Your task to perform on an android device: Go to calendar. Show me events next week Image 0: 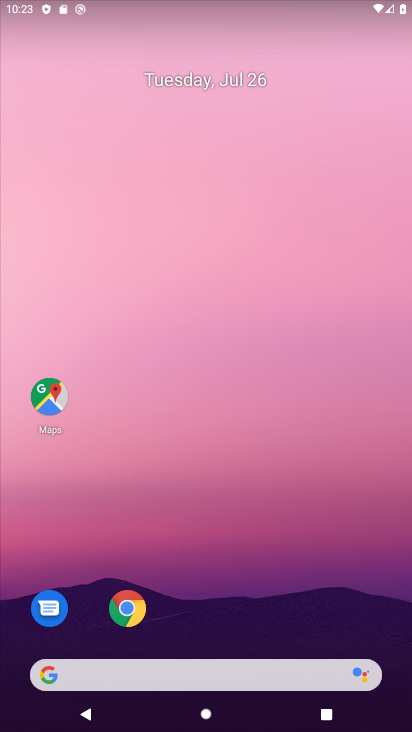
Step 0: drag from (345, 633) to (254, 0)
Your task to perform on an android device: Go to calendar. Show me events next week Image 1: 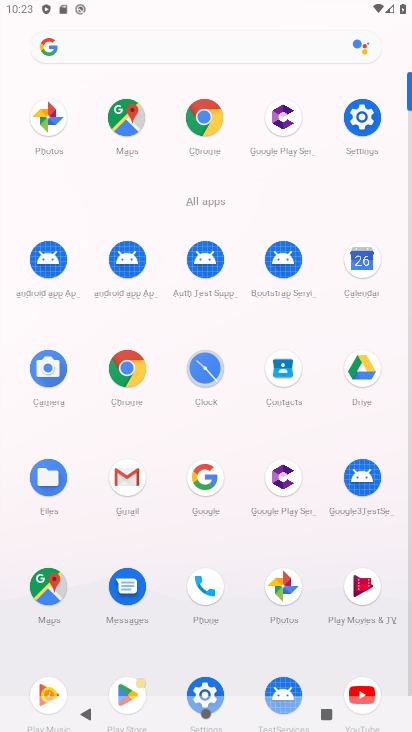
Step 1: click (366, 258)
Your task to perform on an android device: Go to calendar. Show me events next week Image 2: 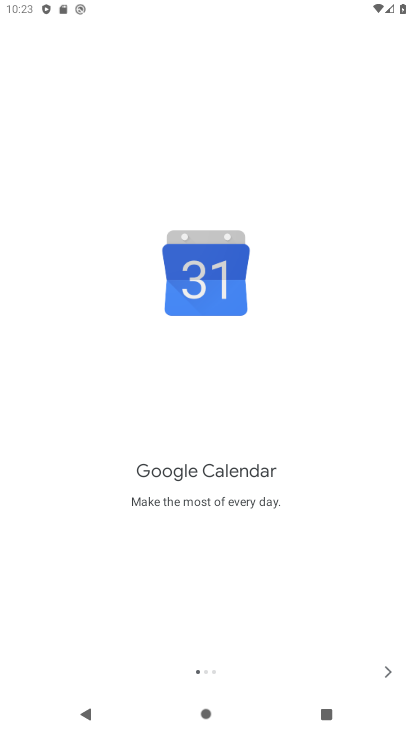
Step 2: click (388, 669)
Your task to perform on an android device: Go to calendar. Show me events next week Image 3: 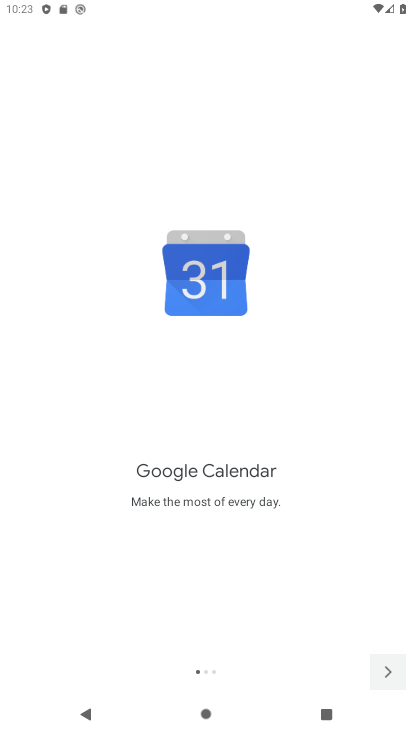
Step 3: click (388, 669)
Your task to perform on an android device: Go to calendar. Show me events next week Image 4: 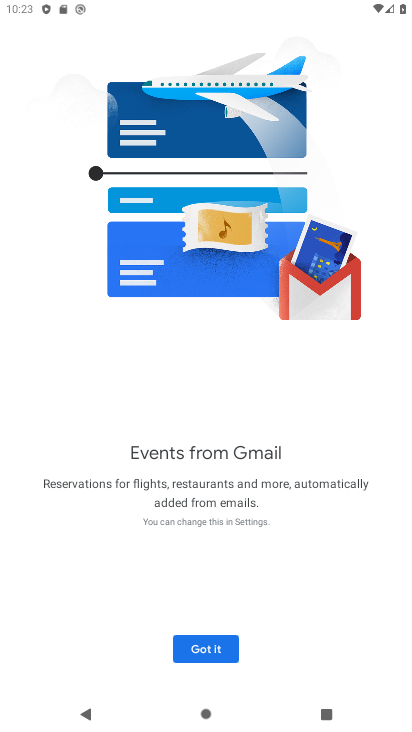
Step 4: click (212, 651)
Your task to perform on an android device: Go to calendar. Show me events next week Image 5: 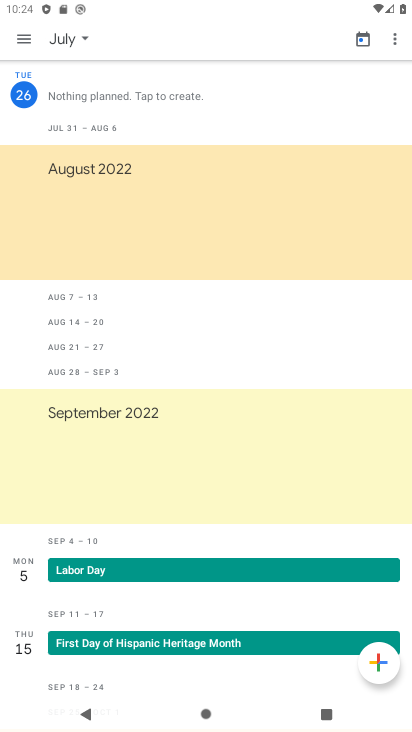
Step 5: click (55, 40)
Your task to perform on an android device: Go to calendar. Show me events next week Image 6: 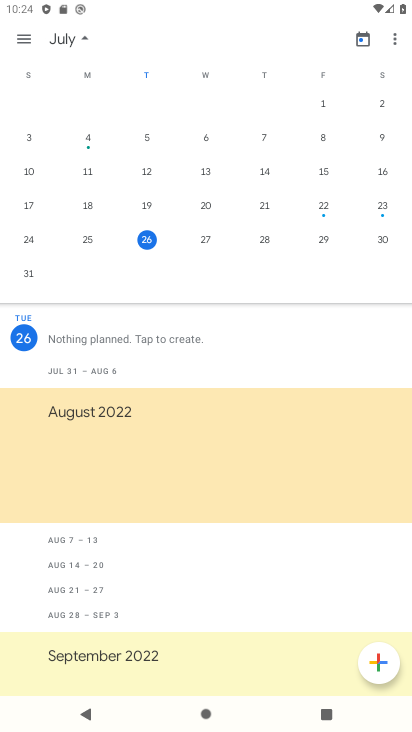
Step 6: drag from (385, 202) to (39, 177)
Your task to perform on an android device: Go to calendar. Show me events next week Image 7: 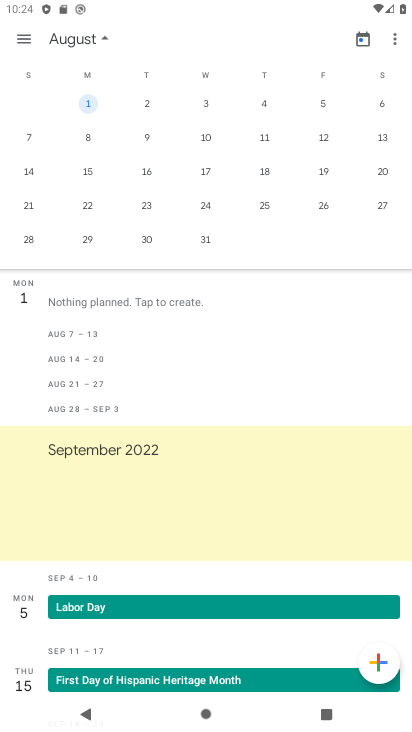
Step 7: click (207, 96)
Your task to perform on an android device: Go to calendar. Show me events next week Image 8: 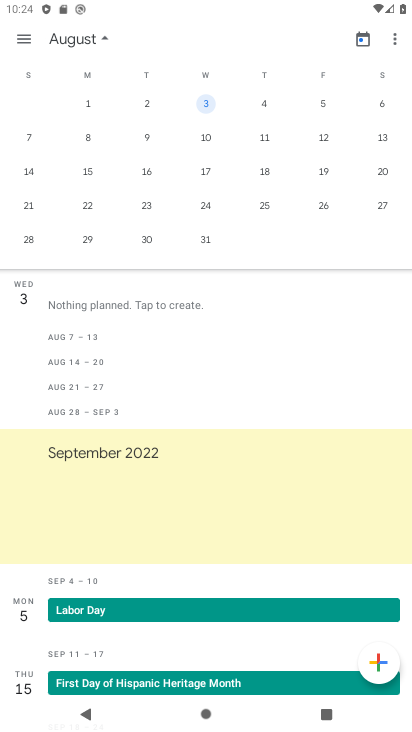
Step 8: click (25, 36)
Your task to perform on an android device: Go to calendar. Show me events next week Image 9: 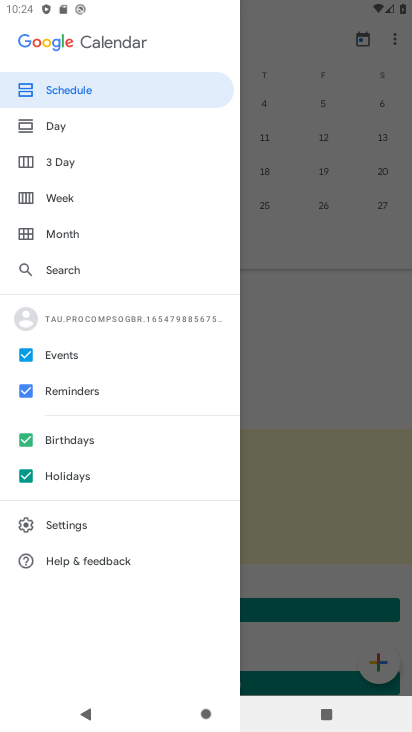
Step 9: click (59, 192)
Your task to perform on an android device: Go to calendar. Show me events next week Image 10: 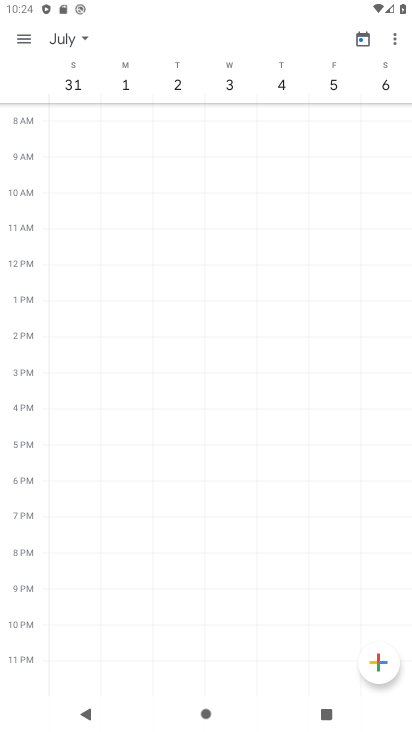
Step 10: task complete